Your task to perform on an android device: make emails show in primary in the gmail app Image 0: 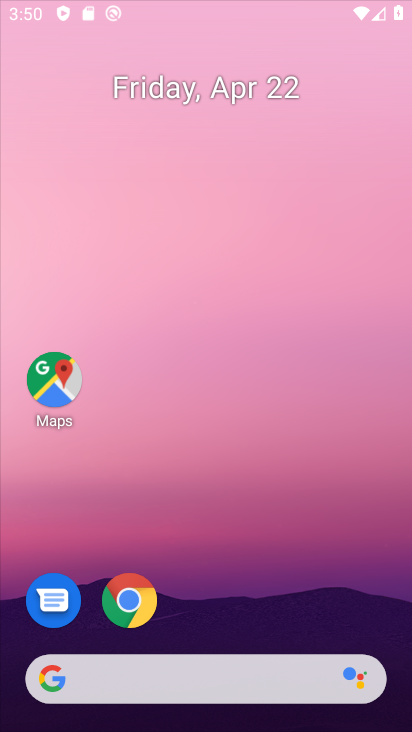
Step 0: click (145, 604)
Your task to perform on an android device: make emails show in primary in the gmail app Image 1: 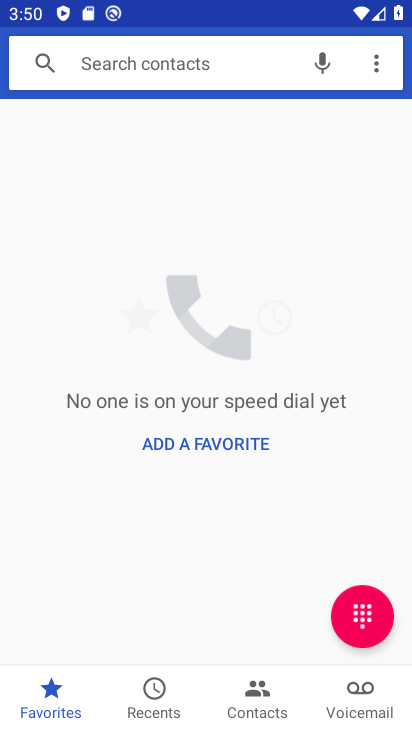
Step 1: press home button
Your task to perform on an android device: make emails show in primary in the gmail app Image 2: 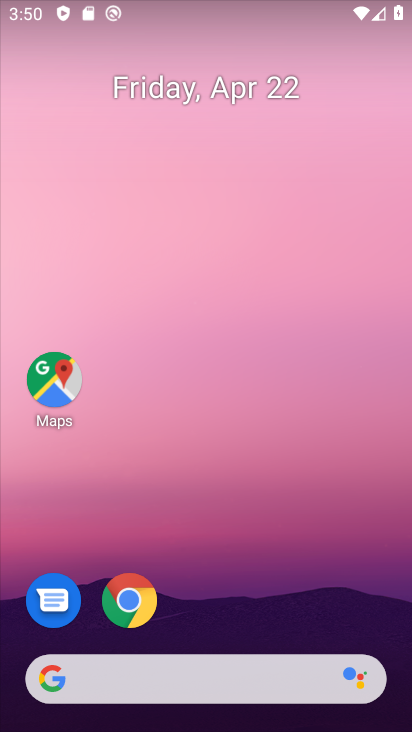
Step 2: drag from (233, 614) to (221, 207)
Your task to perform on an android device: make emails show in primary in the gmail app Image 3: 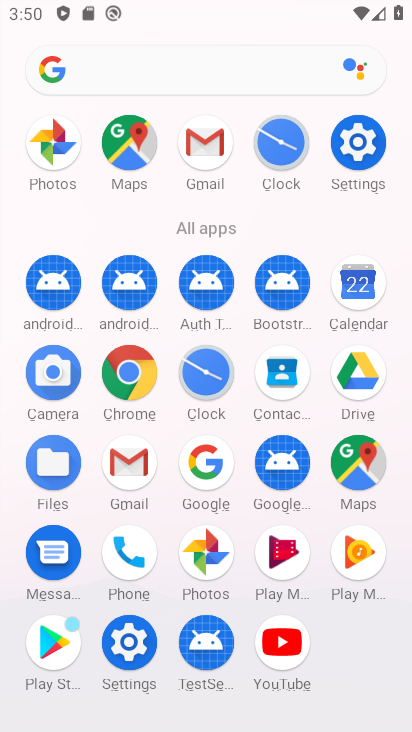
Step 3: click (222, 154)
Your task to perform on an android device: make emails show in primary in the gmail app Image 4: 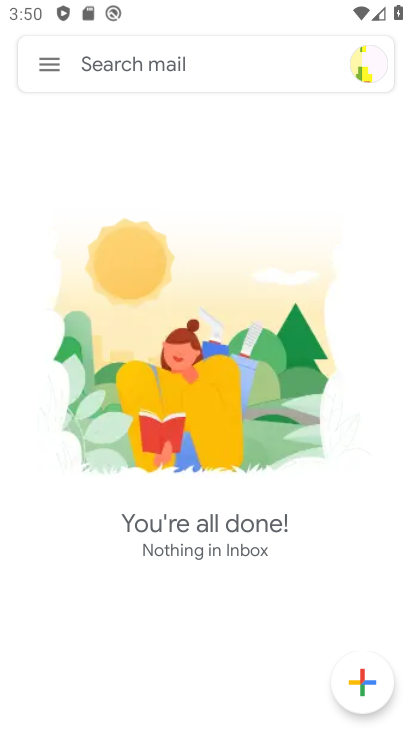
Step 4: click (51, 61)
Your task to perform on an android device: make emails show in primary in the gmail app Image 5: 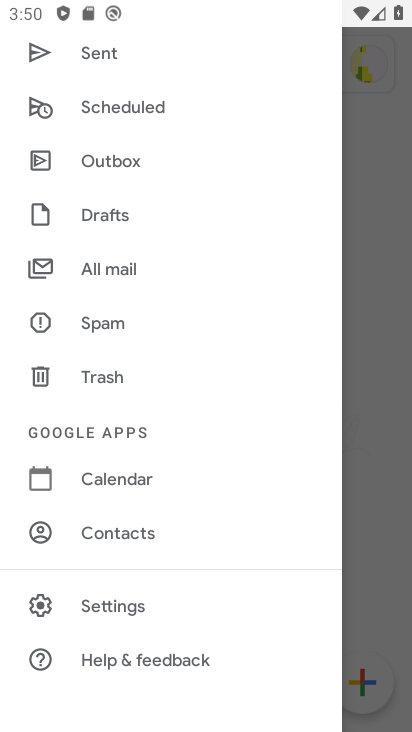
Step 5: click (167, 616)
Your task to perform on an android device: make emails show in primary in the gmail app Image 6: 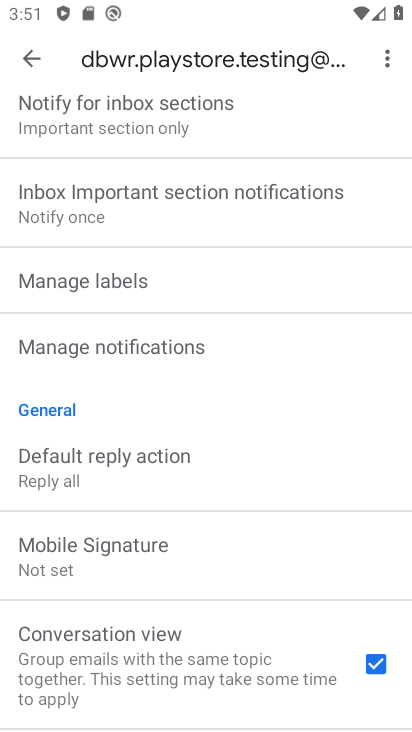
Step 6: drag from (290, 218) to (233, 692)
Your task to perform on an android device: make emails show in primary in the gmail app Image 7: 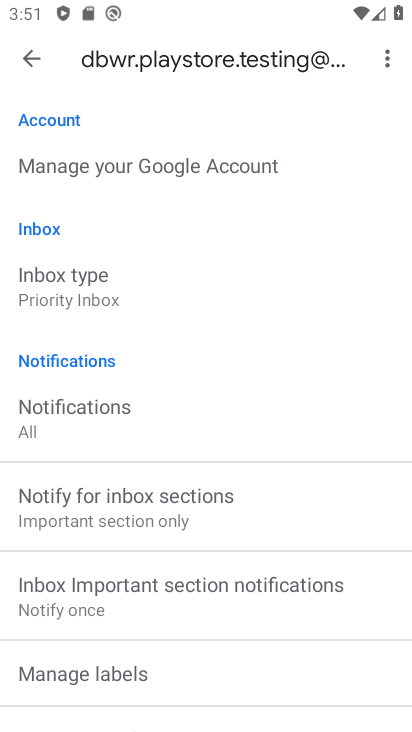
Step 7: click (254, 272)
Your task to perform on an android device: make emails show in primary in the gmail app Image 8: 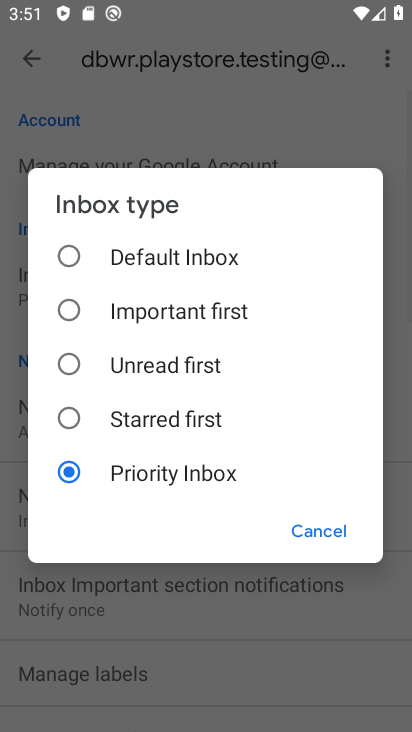
Step 8: click (248, 259)
Your task to perform on an android device: make emails show in primary in the gmail app Image 9: 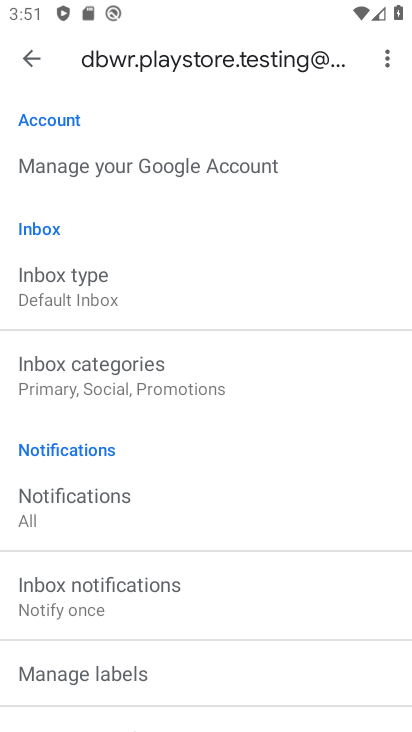
Step 9: task complete